Your task to perform on an android device: star an email in the gmail app Image 0: 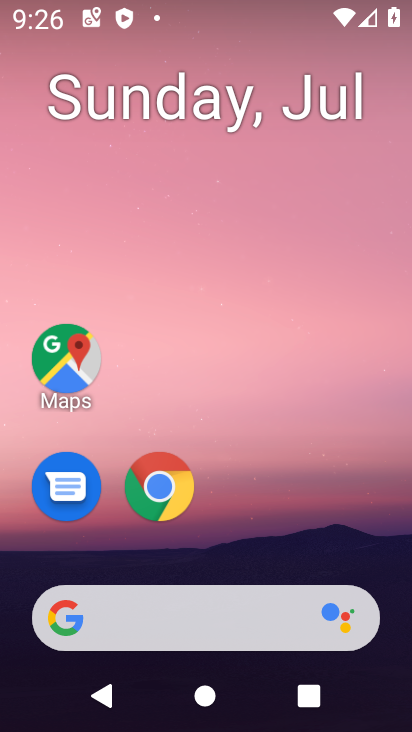
Step 0: press home button
Your task to perform on an android device: star an email in the gmail app Image 1: 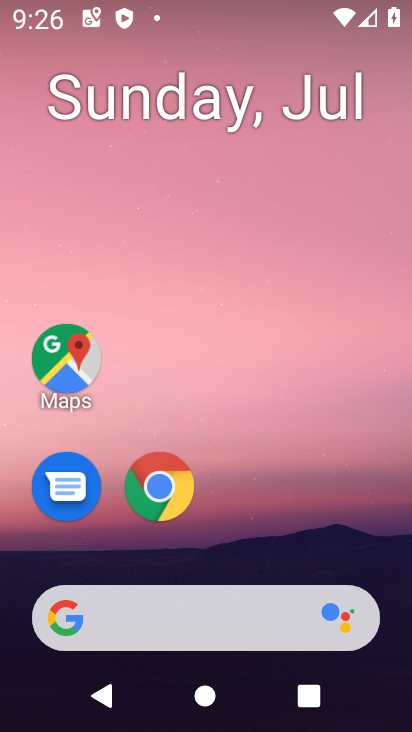
Step 1: drag from (370, 533) to (353, 76)
Your task to perform on an android device: star an email in the gmail app Image 2: 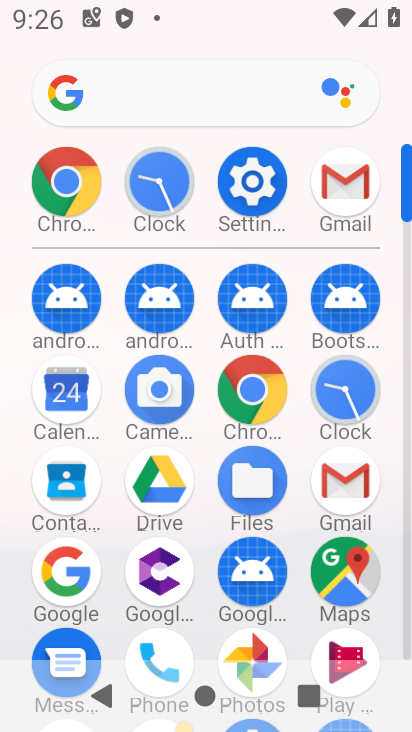
Step 2: click (346, 485)
Your task to perform on an android device: star an email in the gmail app Image 3: 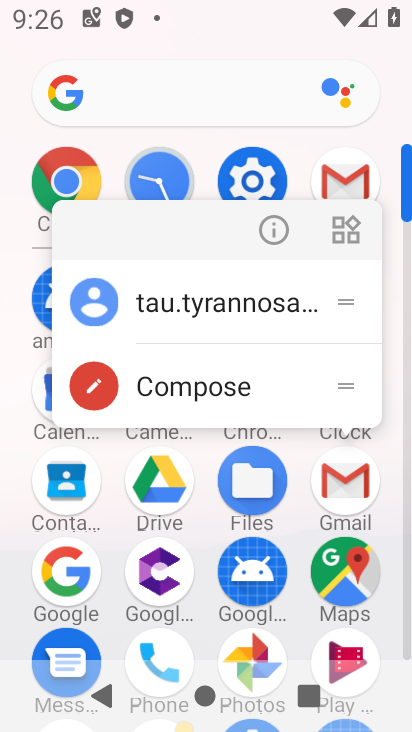
Step 3: click (346, 485)
Your task to perform on an android device: star an email in the gmail app Image 4: 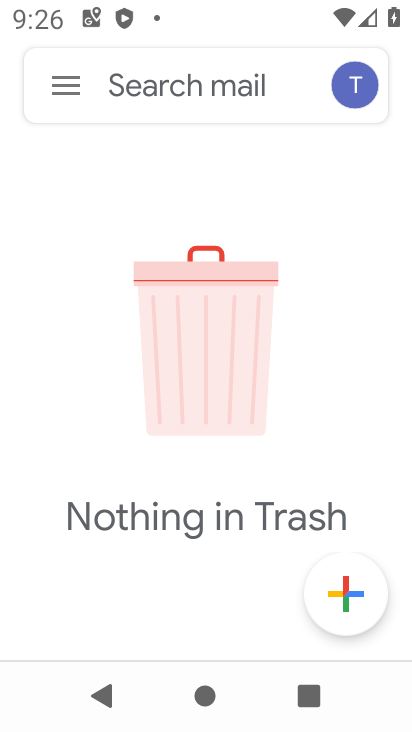
Step 4: click (67, 91)
Your task to perform on an android device: star an email in the gmail app Image 5: 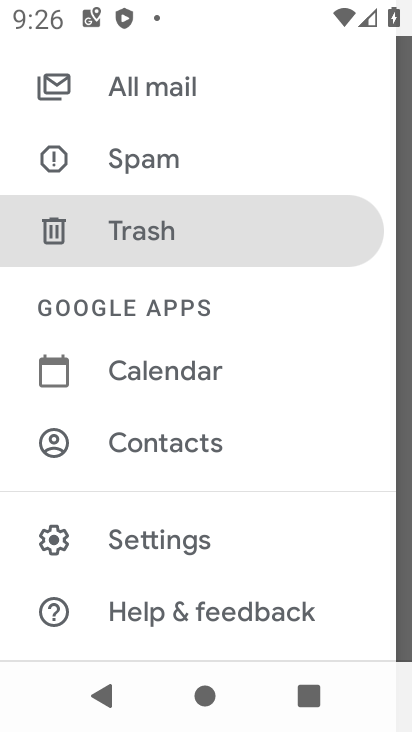
Step 5: drag from (308, 281) to (308, 403)
Your task to perform on an android device: star an email in the gmail app Image 6: 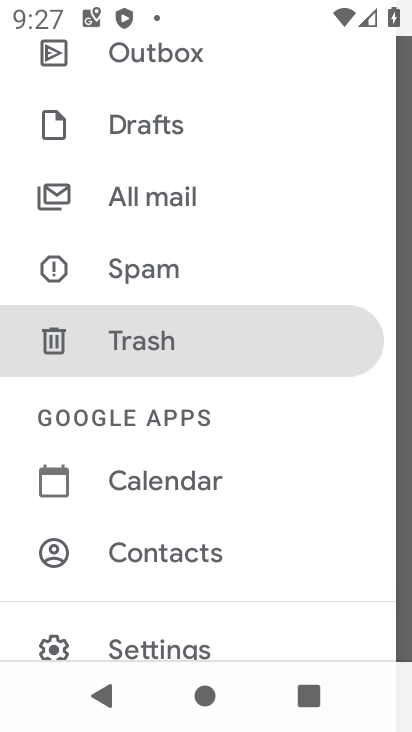
Step 6: click (214, 197)
Your task to perform on an android device: star an email in the gmail app Image 7: 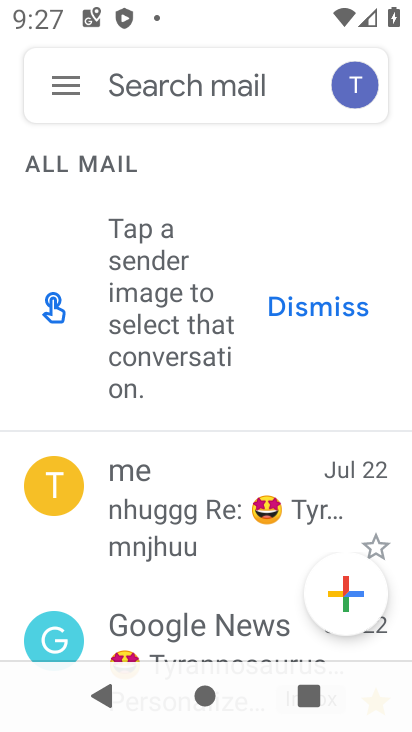
Step 7: drag from (247, 455) to (243, 250)
Your task to perform on an android device: star an email in the gmail app Image 8: 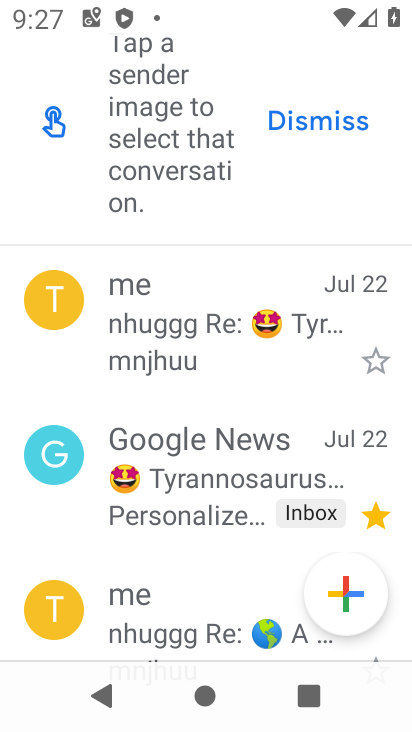
Step 8: click (374, 359)
Your task to perform on an android device: star an email in the gmail app Image 9: 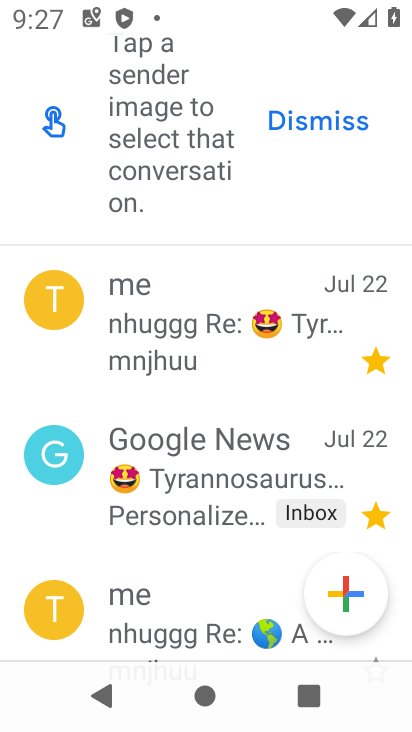
Step 9: task complete